Your task to perform on an android device: See recent photos Image 0: 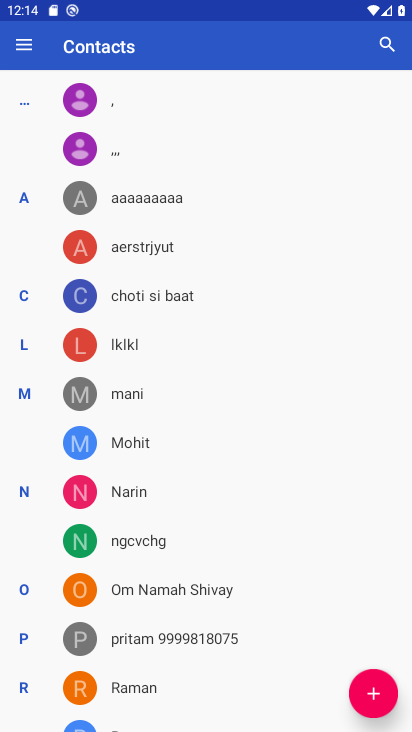
Step 0: press home button
Your task to perform on an android device: See recent photos Image 1: 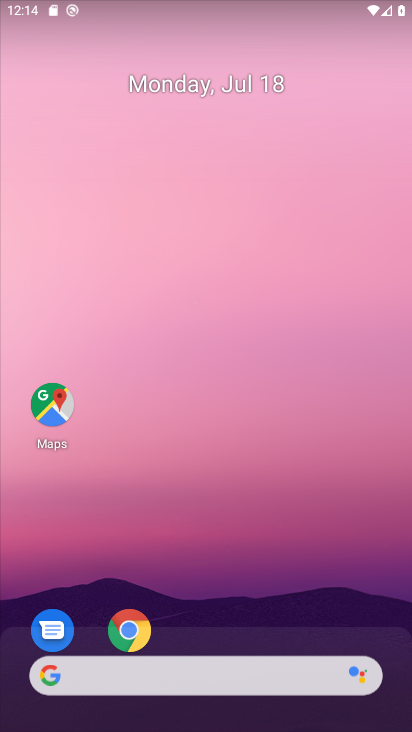
Step 1: drag from (301, 638) to (261, 360)
Your task to perform on an android device: See recent photos Image 2: 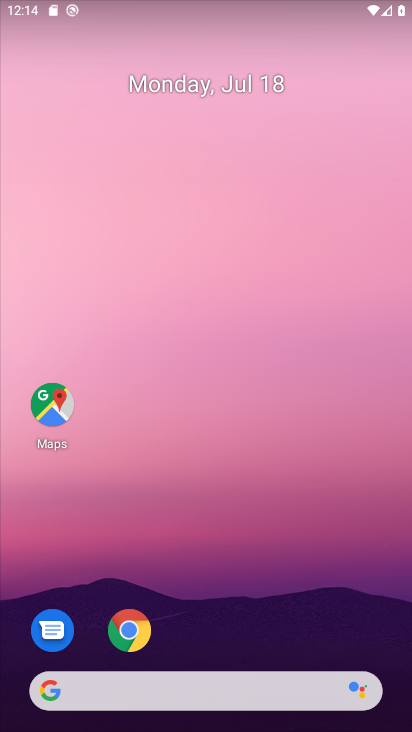
Step 2: drag from (246, 630) to (256, 208)
Your task to perform on an android device: See recent photos Image 3: 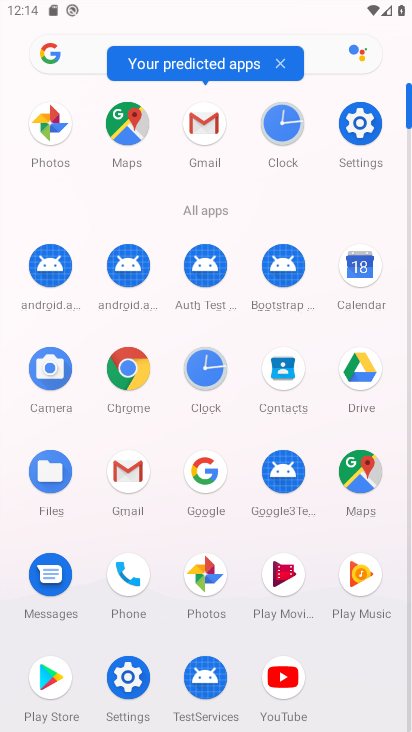
Step 3: click (52, 128)
Your task to perform on an android device: See recent photos Image 4: 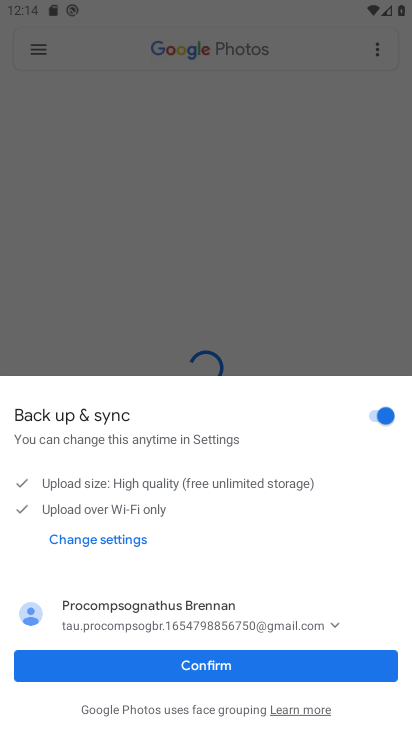
Step 4: click (267, 665)
Your task to perform on an android device: See recent photos Image 5: 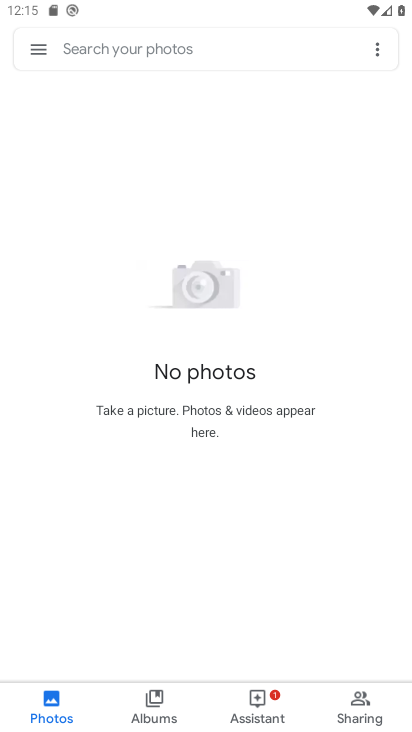
Step 5: task complete